Your task to perform on an android device: Open Chrome and go to the settings page Image 0: 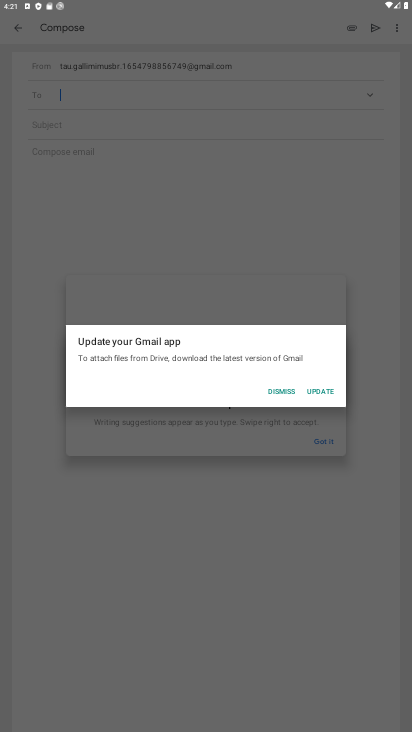
Step 0: press home button
Your task to perform on an android device: Open Chrome and go to the settings page Image 1: 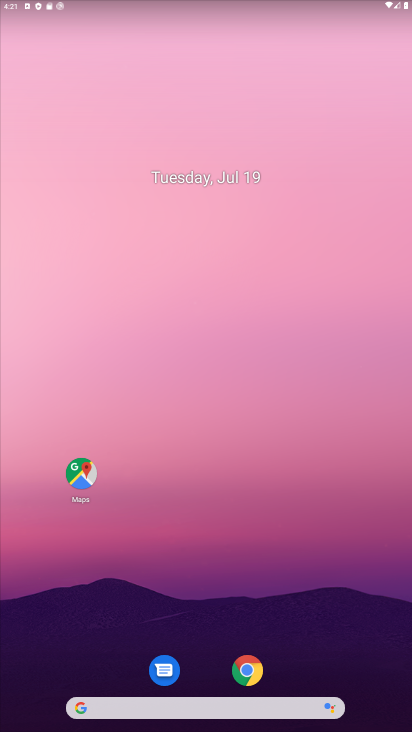
Step 1: drag from (253, 731) to (265, 160)
Your task to perform on an android device: Open Chrome and go to the settings page Image 2: 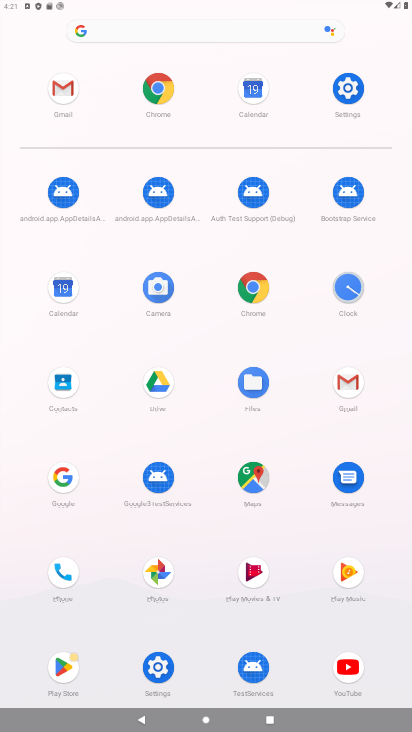
Step 2: click (253, 284)
Your task to perform on an android device: Open Chrome and go to the settings page Image 3: 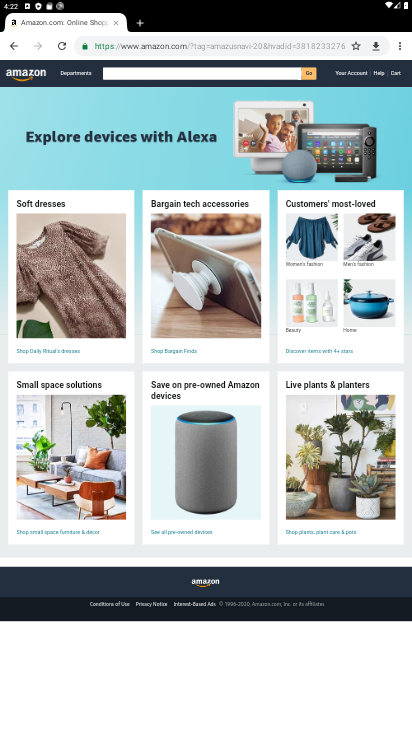
Step 3: task complete